Your task to perform on an android device: Go to CNN.com Image 0: 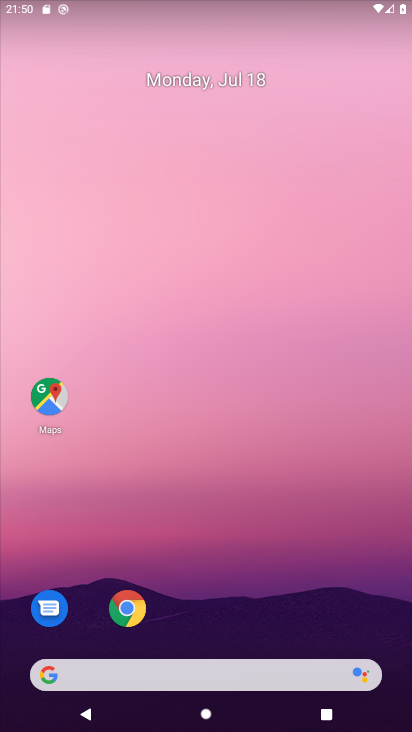
Step 0: click (124, 615)
Your task to perform on an android device: Go to CNN.com Image 1: 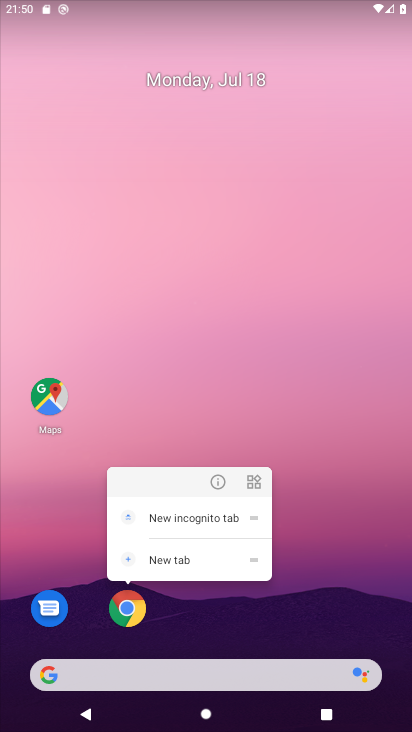
Step 1: click (125, 600)
Your task to perform on an android device: Go to CNN.com Image 2: 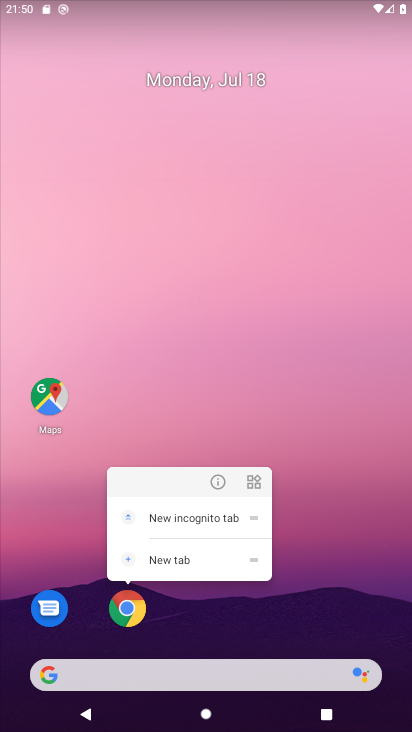
Step 2: click (129, 603)
Your task to perform on an android device: Go to CNN.com Image 3: 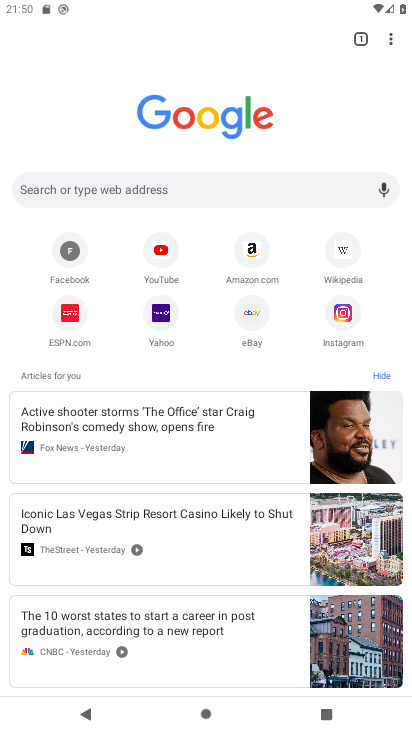
Step 3: click (132, 190)
Your task to perform on an android device: Go to CNN.com Image 4: 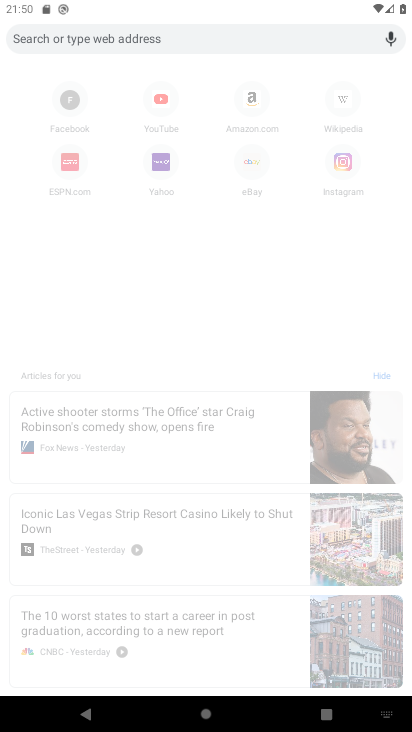
Step 4: type "CNN.com"
Your task to perform on an android device: Go to CNN.com Image 5: 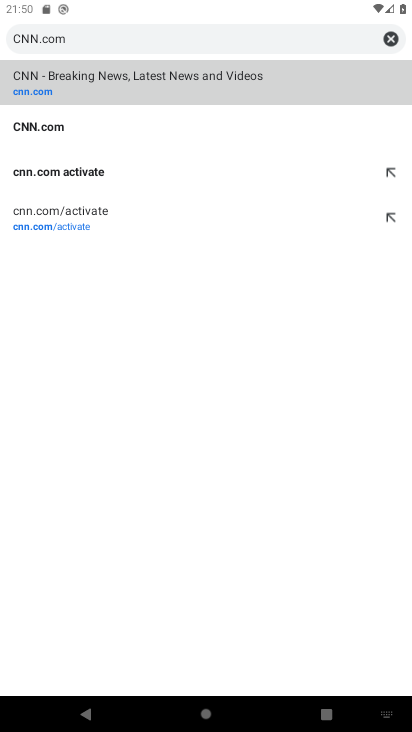
Step 5: click (122, 82)
Your task to perform on an android device: Go to CNN.com Image 6: 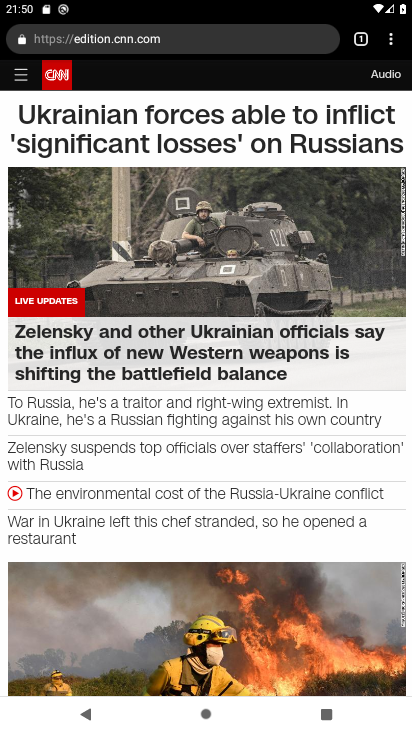
Step 6: task complete